Your task to perform on an android device: turn on location history Image 0: 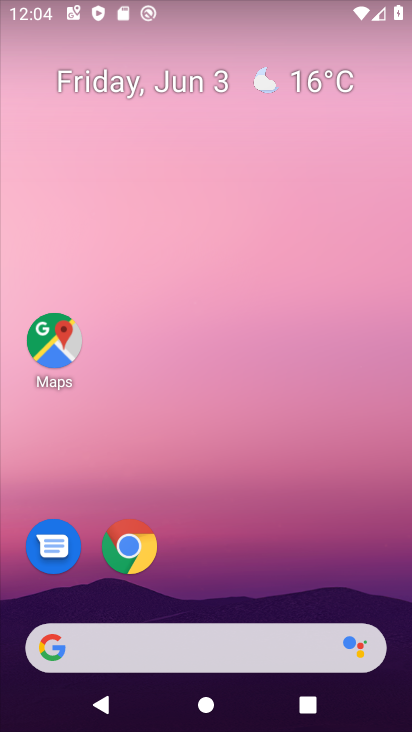
Step 0: click (52, 344)
Your task to perform on an android device: turn on location history Image 1: 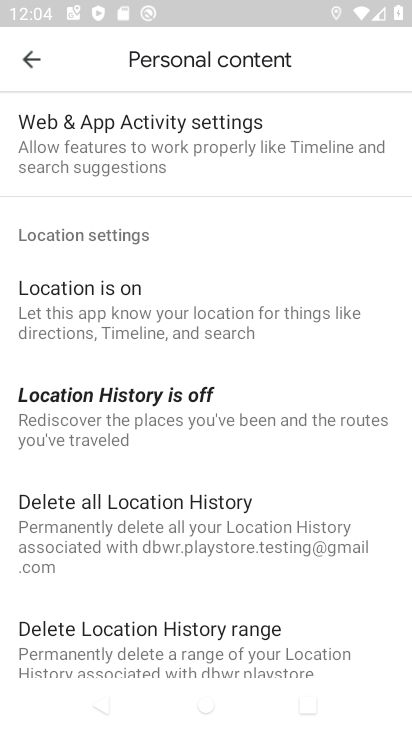
Step 1: click (124, 397)
Your task to perform on an android device: turn on location history Image 2: 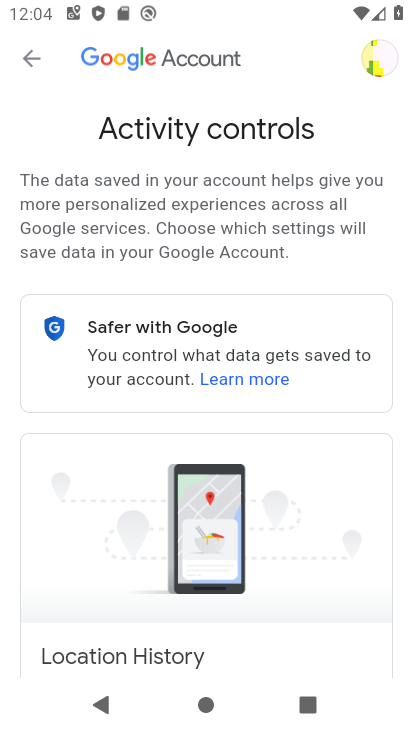
Step 2: task complete